Your task to perform on an android device: change the clock display to analog Image 0: 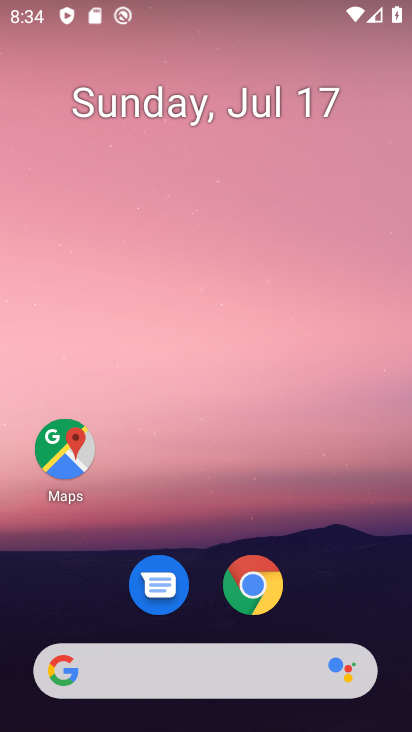
Step 0: drag from (199, 673) to (327, 33)
Your task to perform on an android device: change the clock display to analog Image 1: 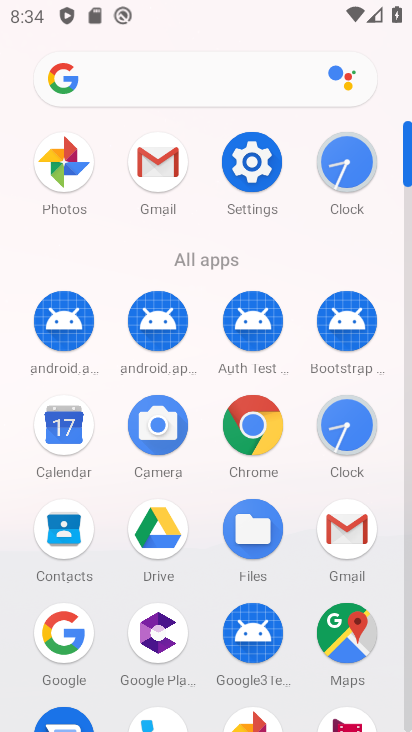
Step 1: click (342, 438)
Your task to perform on an android device: change the clock display to analog Image 2: 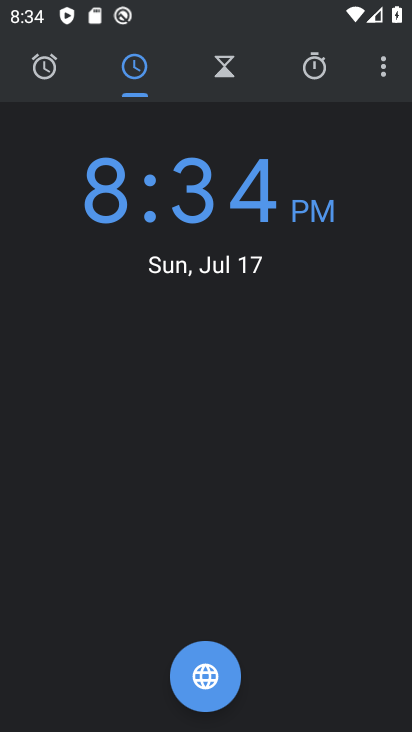
Step 2: click (387, 67)
Your task to perform on an android device: change the clock display to analog Image 3: 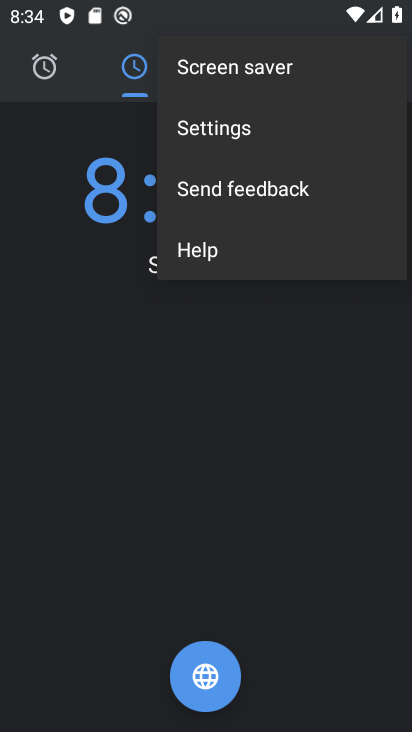
Step 3: click (247, 133)
Your task to perform on an android device: change the clock display to analog Image 4: 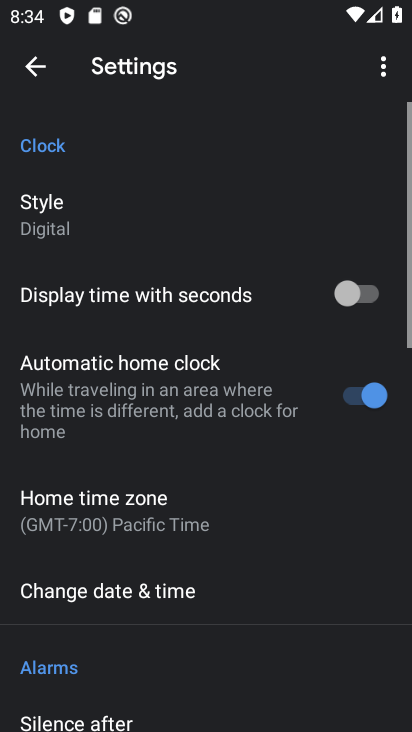
Step 4: click (66, 211)
Your task to perform on an android device: change the clock display to analog Image 5: 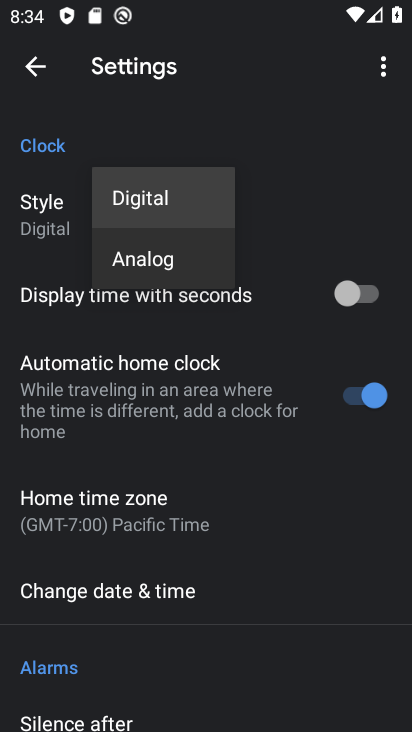
Step 5: click (132, 260)
Your task to perform on an android device: change the clock display to analog Image 6: 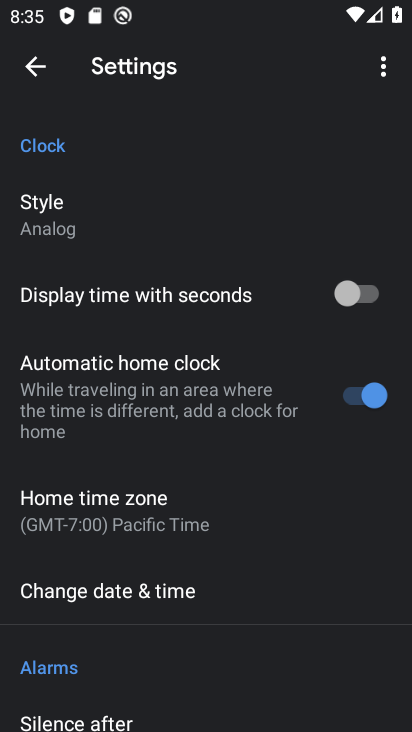
Step 6: task complete